Your task to perform on an android device: Open calendar and show me the third week of next month Image 0: 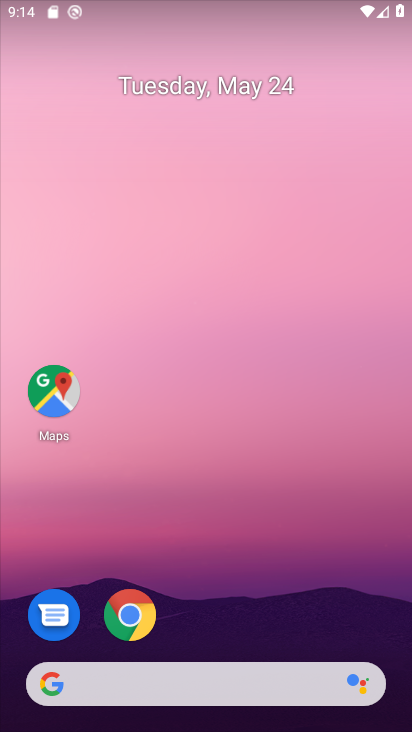
Step 0: drag from (195, 394) to (263, 146)
Your task to perform on an android device: Open calendar and show me the third week of next month Image 1: 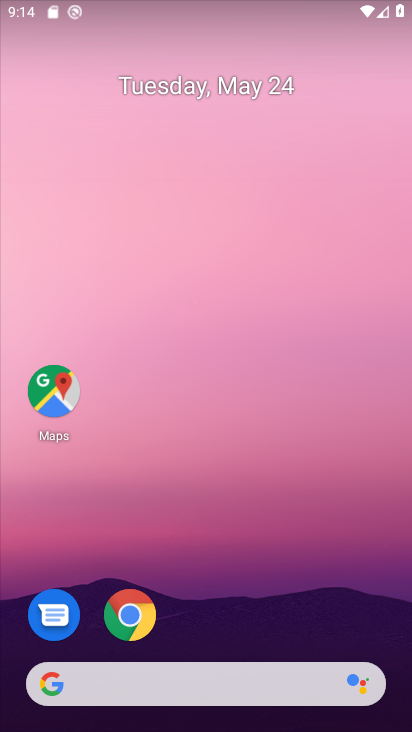
Step 1: drag from (198, 646) to (271, 222)
Your task to perform on an android device: Open calendar and show me the third week of next month Image 2: 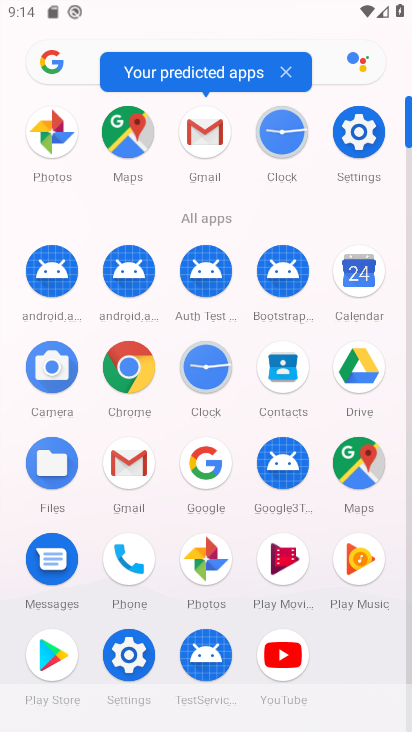
Step 2: click (347, 283)
Your task to perform on an android device: Open calendar and show me the third week of next month Image 3: 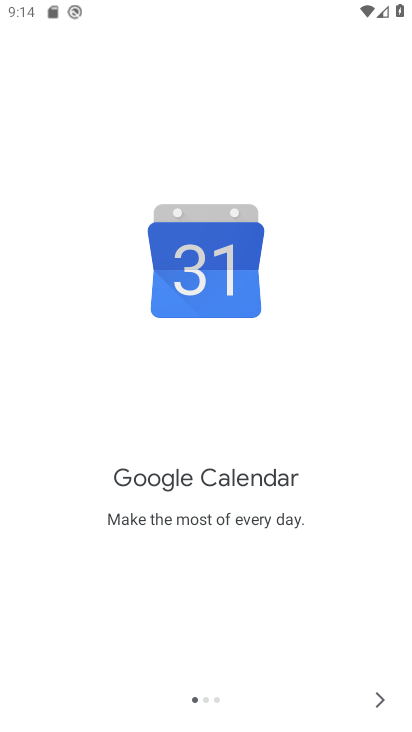
Step 3: click (397, 688)
Your task to perform on an android device: Open calendar and show me the third week of next month Image 4: 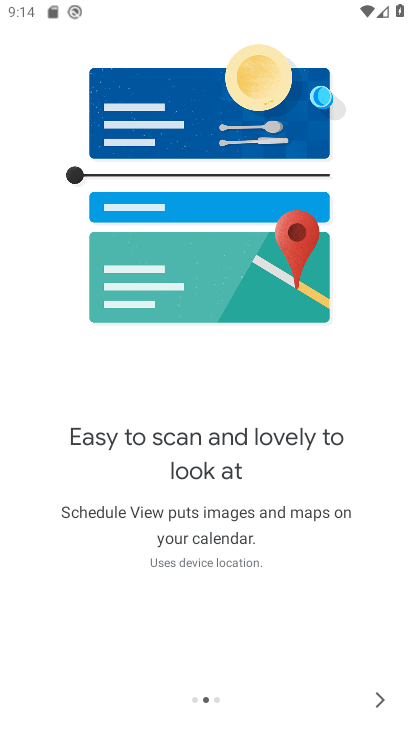
Step 4: click (390, 709)
Your task to perform on an android device: Open calendar and show me the third week of next month Image 5: 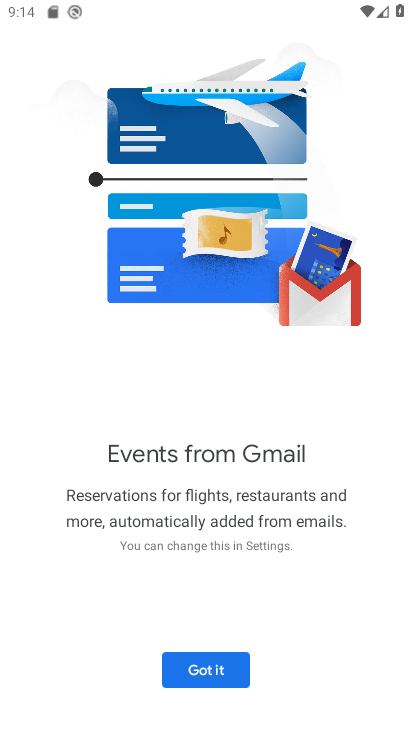
Step 5: click (223, 667)
Your task to perform on an android device: Open calendar and show me the third week of next month Image 6: 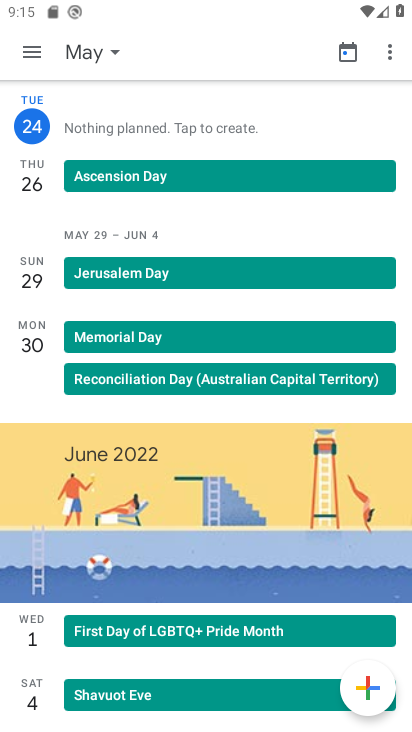
Step 6: click (120, 59)
Your task to perform on an android device: Open calendar and show me the third week of next month Image 7: 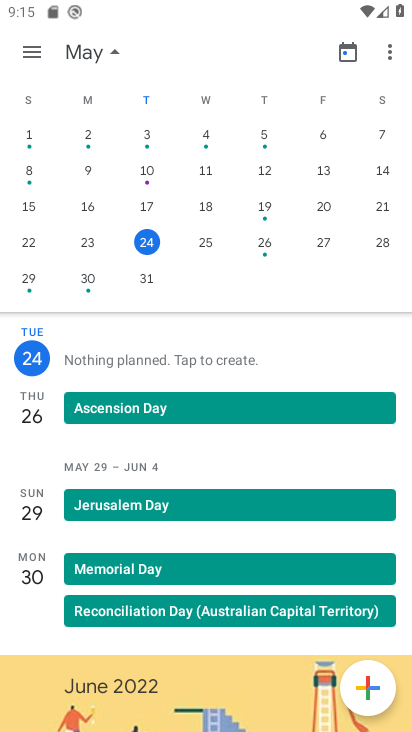
Step 7: drag from (334, 255) to (8, 258)
Your task to perform on an android device: Open calendar and show me the third week of next month Image 8: 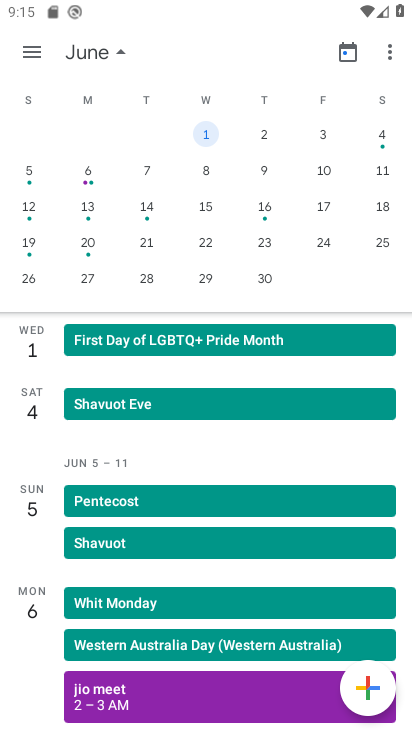
Step 8: click (29, 238)
Your task to perform on an android device: Open calendar and show me the third week of next month Image 9: 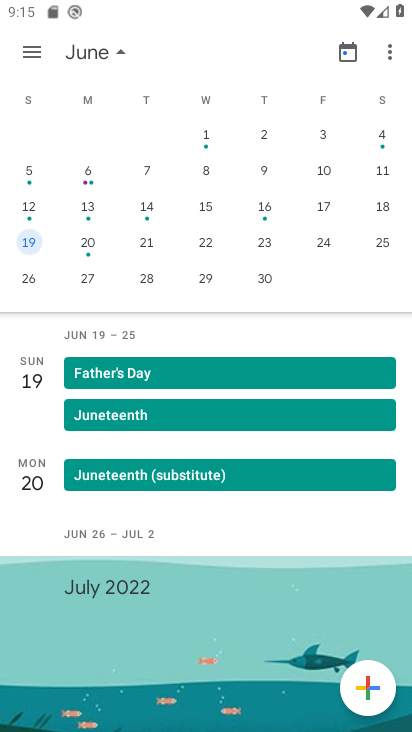
Step 9: click (41, 50)
Your task to perform on an android device: Open calendar and show me the third week of next month Image 10: 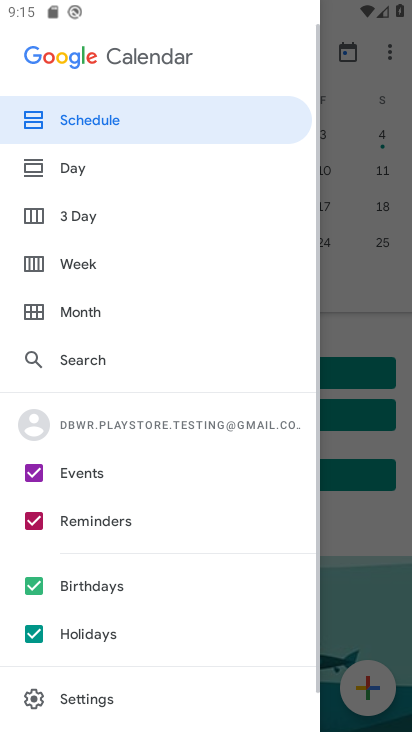
Step 10: click (138, 272)
Your task to perform on an android device: Open calendar and show me the third week of next month Image 11: 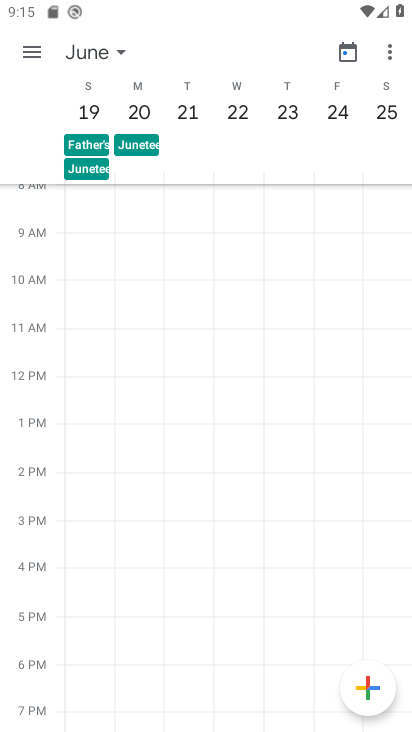
Step 11: task complete